Your task to perform on an android device: turn pop-ups on in chrome Image 0: 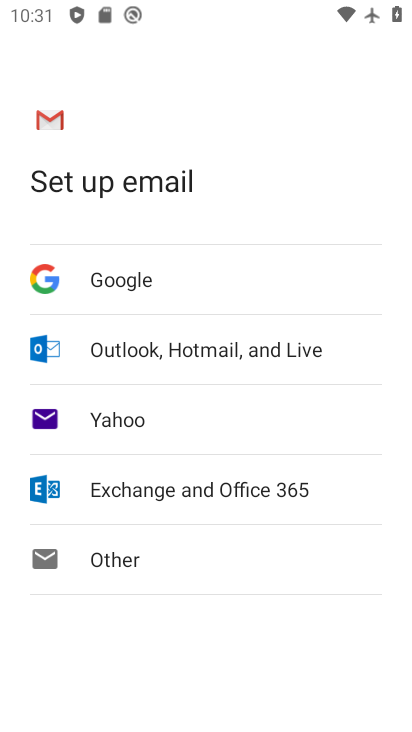
Step 0: press back button
Your task to perform on an android device: turn pop-ups on in chrome Image 1: 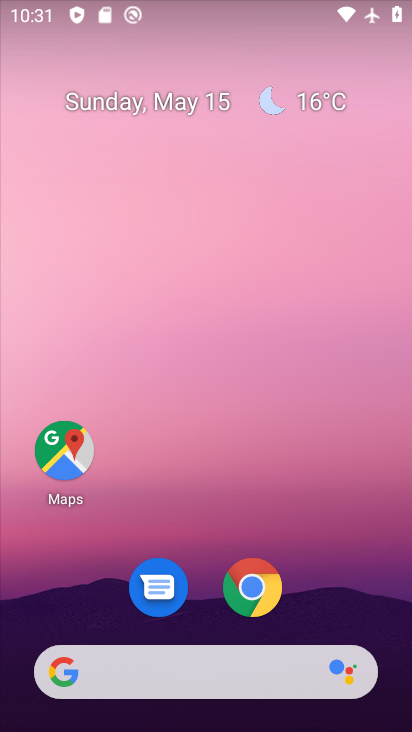
Step 1: drag from (303, 286) to (267, 35)
Your task to perform on an android device: turn pop-ups on in chrome Image 2: 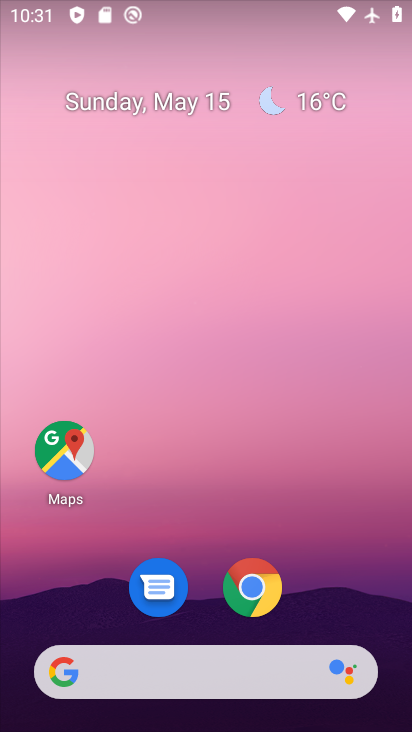
Step 2: drag from (348, 575) to (313, 15)
Your task to perform on an android device: turn pop-ups on in chrome Image 3: 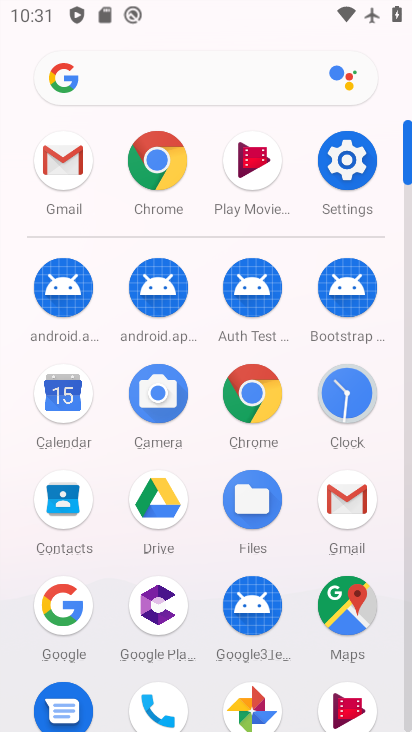
Step 3: drag from (5, 554) to (1, 237)
Your task to perform on an android device: turn pop-ups on in chrome Image 4: 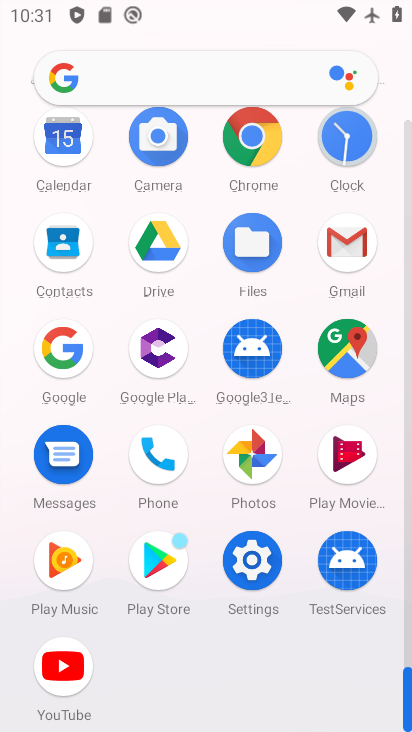
Step 4: click (249, 128)
Your task to perform on an android device: turn pop-ups on in chrome Image 5: 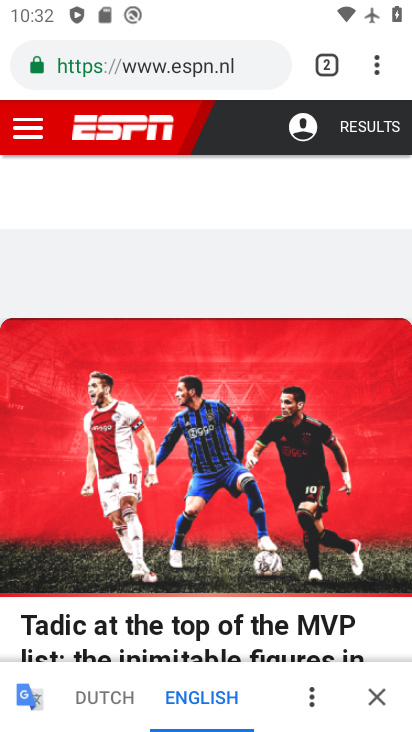
Step 5: drag from (378, 59) to (138, 636)
Your task to perform on an android device: turn pop-ups on in chrome Image 6: 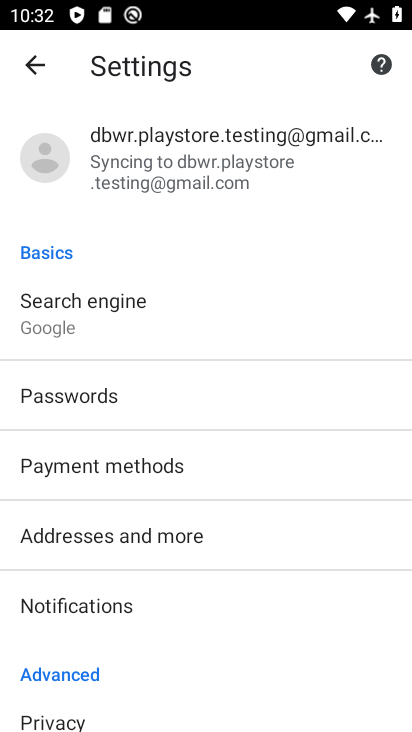
Step 6: drag from (212, 569) to (227, 230)
Your task to perform on an android device: turn pop-ups on in chrome Image 7: 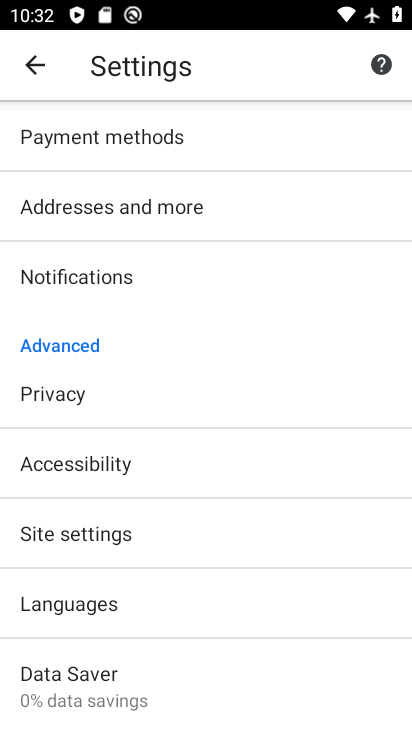
Step 7: click (165, 539)
Your task to perform on an android device: turn pop-ups on in chrome Image 8: 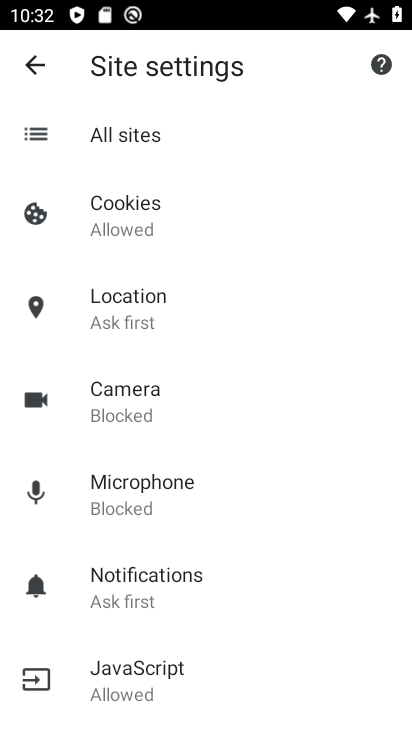
Step 8: drag from (207, 489) to (207, 138)
Your task to perform on an android device: turn pop-ups on in chrome Image 9: 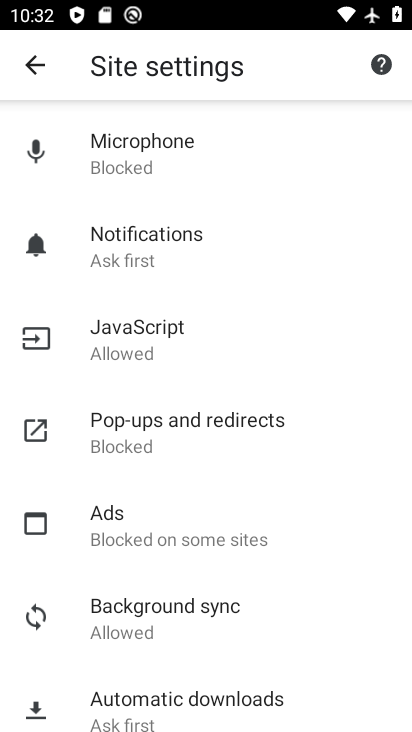
Step 9: click (190, 428)
Your task to perform on an android device: turn pop-ups on in chrome Image 10: 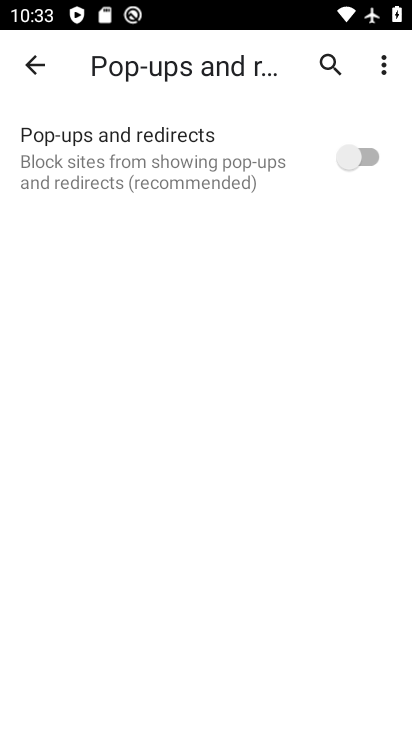
Step 10: click (351, 157)
Your task to perform on an android device: turn pop-ups on in chrome Image 11: 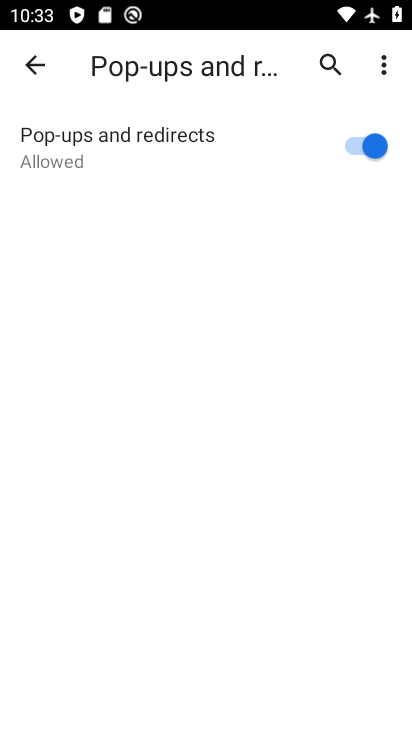
Step 11: task complete